Your task to perform on an android device: open a new tab in the chrome app Image 0: 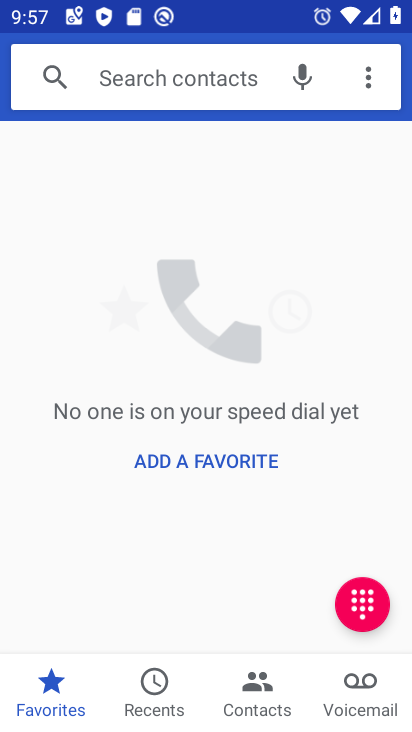
Step 0: press home button
Your task to perform on an android device: open a new tab in the chrome app Image 1: 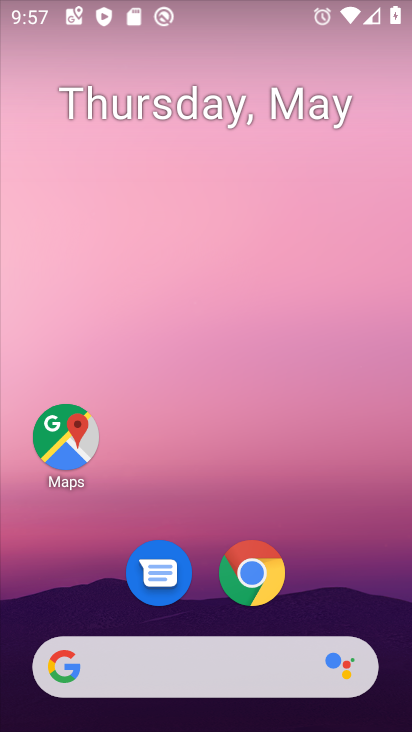
Step 1: click (267, 587)
Your task to perform on an android device: open a new tab in the chrome app Image 2: 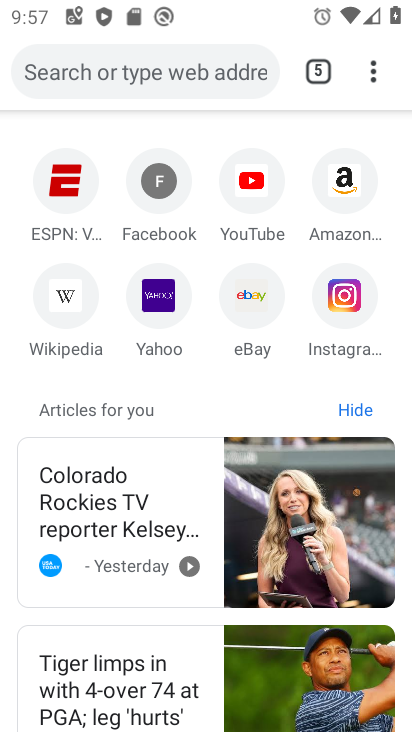
Step 2: click (307, 68)
Your task to perform on an android device: open a new tab in the chrome app Image 3: 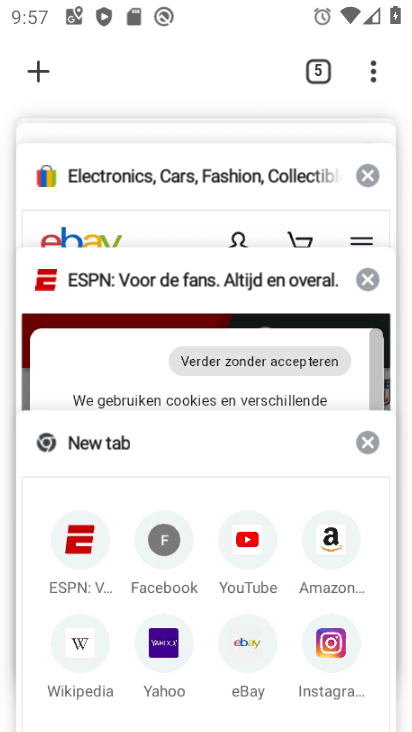
Step 3: click (37, 62)
Your task to perform on an android device: open a new tab in the chrome app Image 4: 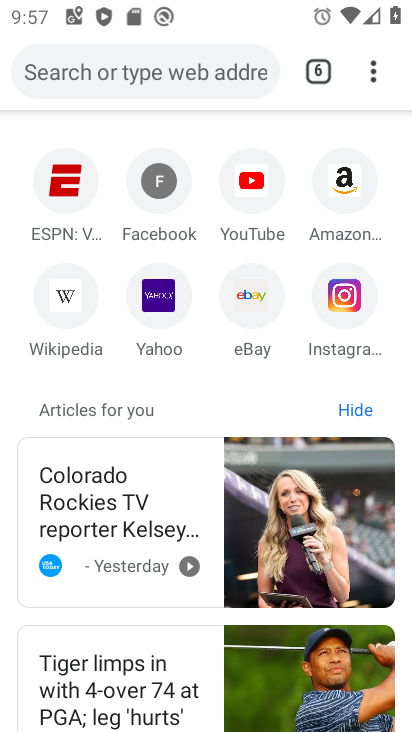
Step 4: task complete